Your task to perform on an android device: change alarm snooze length Image 0: 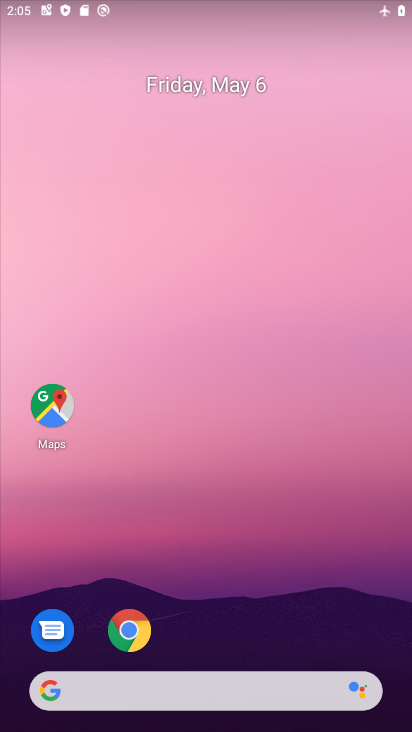
Step 0: drag from (156, 679) to (93, 0)
Your task to perform on an android device: change alarm snooze length Image 1: 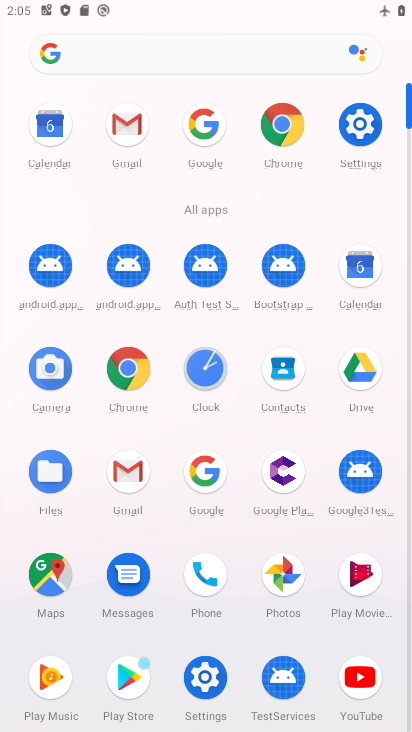
Step 1: click (200, 373)
Your task to perform on an android device: change alarm snooze length Image 2: 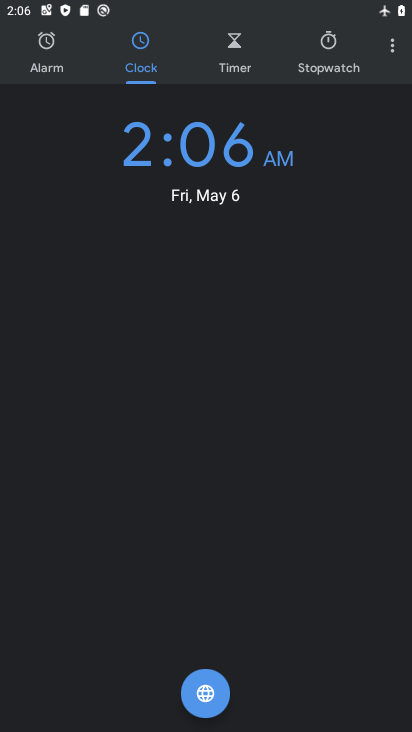
Step 2: click (387, 51)
Your task to perform on an android device: change alarm snooze length Image 3: 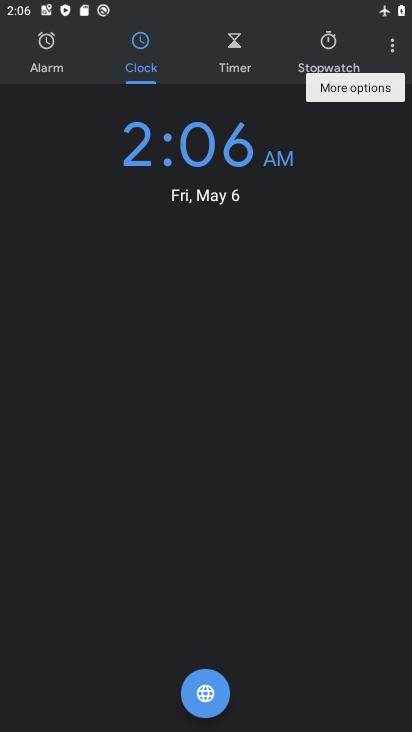
Step 3: click (387, 51)
Your task to perform on an android device: change alarm snooze length Image 4: 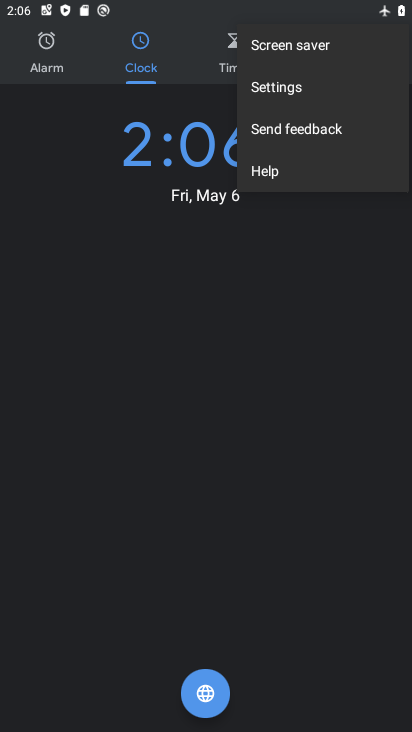
Step 4: click (285, 103)
Your task to perform on an android device: change alarm snooze length Image 5: 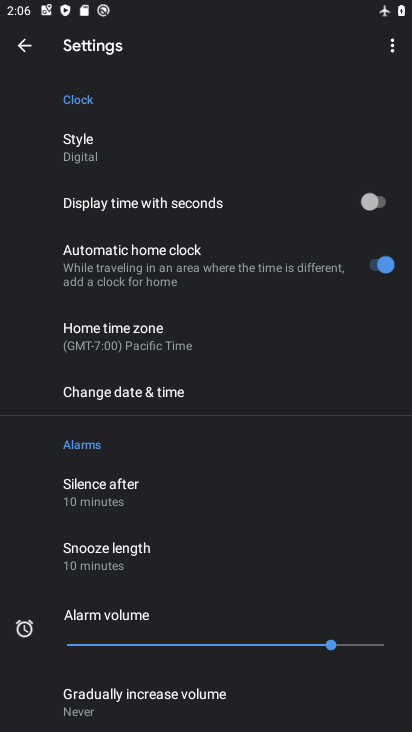
Step 5: click (156, 544)
Your task to perform on an android device: change alarm snooze length Image 6: 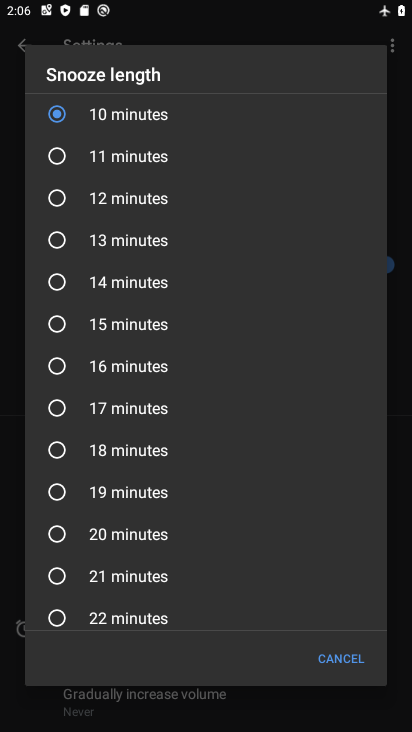
Step 6: click (65, 547)
Your task to perform on an android device: change alarm snooze length Image 7: 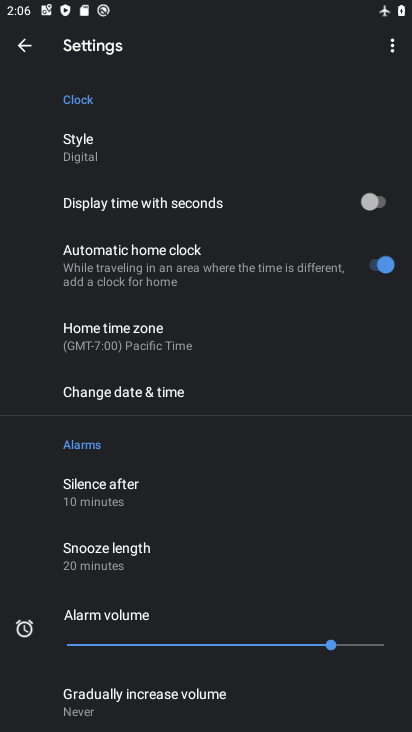
Step 7: task complete